Your task to perform on an android device: Open eBay Image 0: 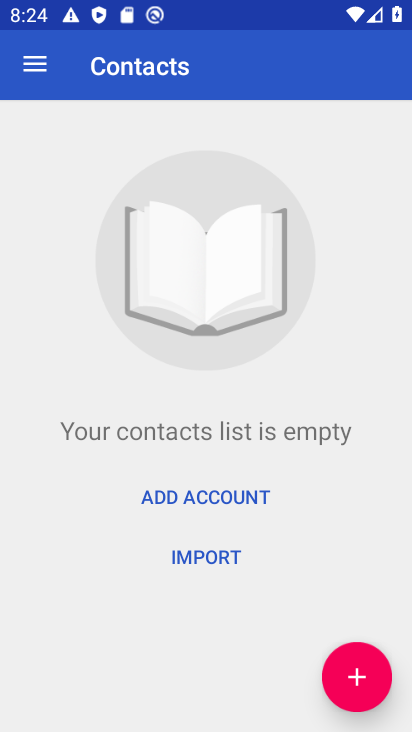
Step 0: press back button
Your task to perform on an android device: Open eBay Image 1: 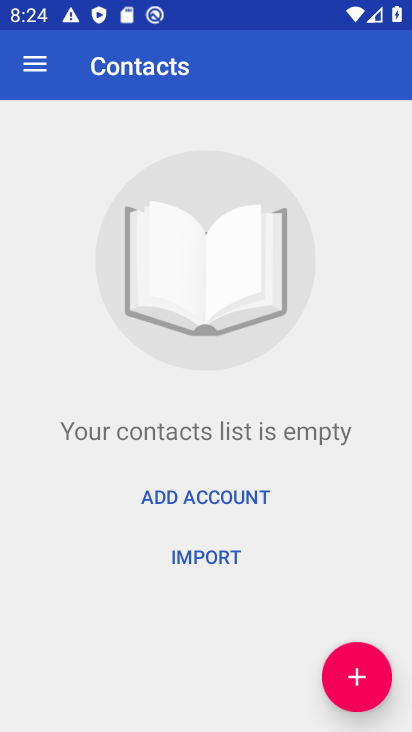
Step 1: press back button
Your task to perform on an android device: Open eBay Image 2: 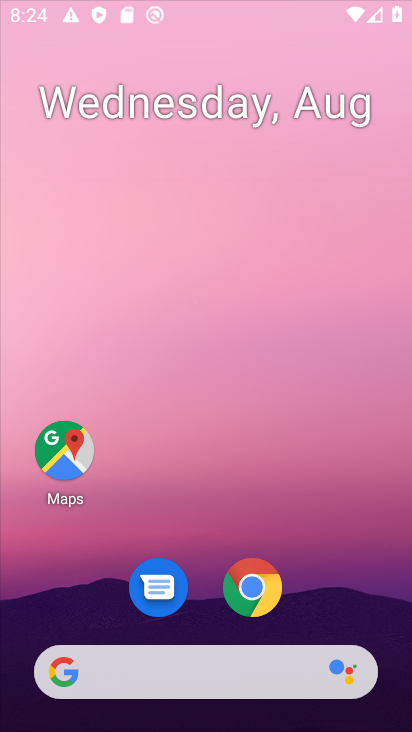
Step 2: press back button
Your task to perform on an android device: Open eBay Image 3: 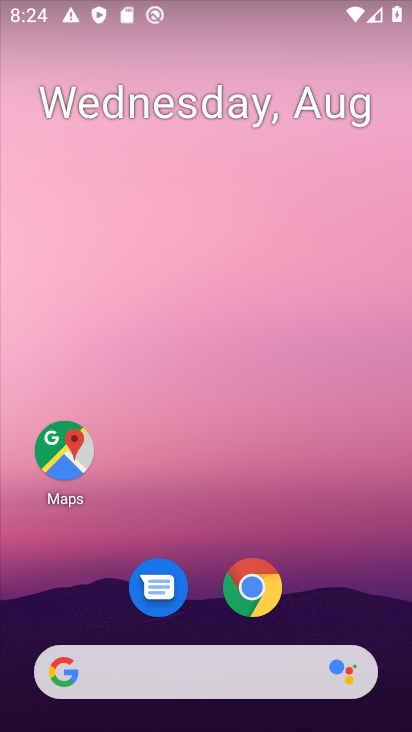
Step 3: press home button
Your task to perform on an android device: Open eBay Image 4: 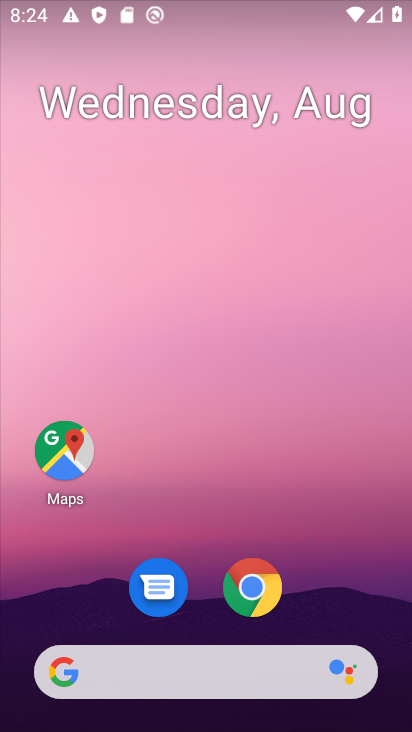
Step 4: drag from (217, 536) to (187, 297)
Your task to perform on an android device: Open eBay Image 5: 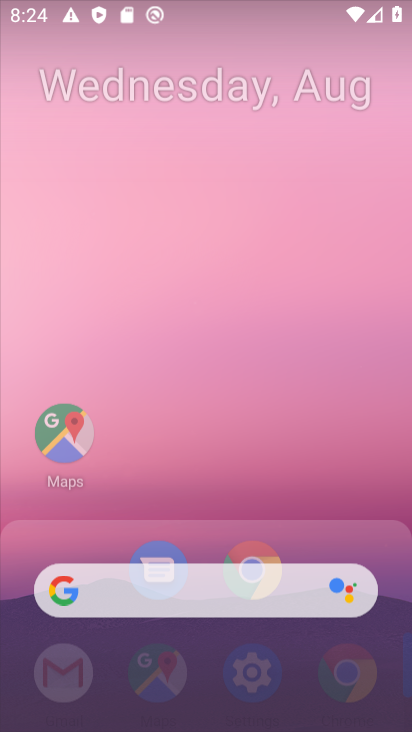
Step 5: drag from (205, 572) to (171, 357)
Your task to perform on an android device: Open eBay Image 6: 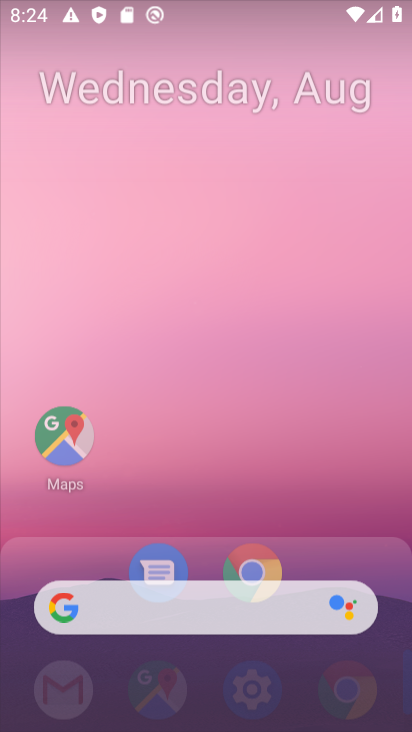
Step 6: drag from (218, 520) to (200, 63)
Your task to perform on an android device: Open eBay Image 7: 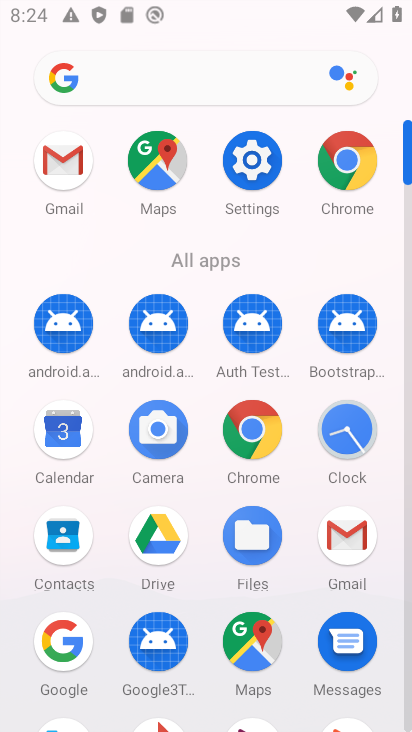
Step 7: drag from (224, 448) to (204, 68)
Your task to perform on an android device: Open eBay Image 8: 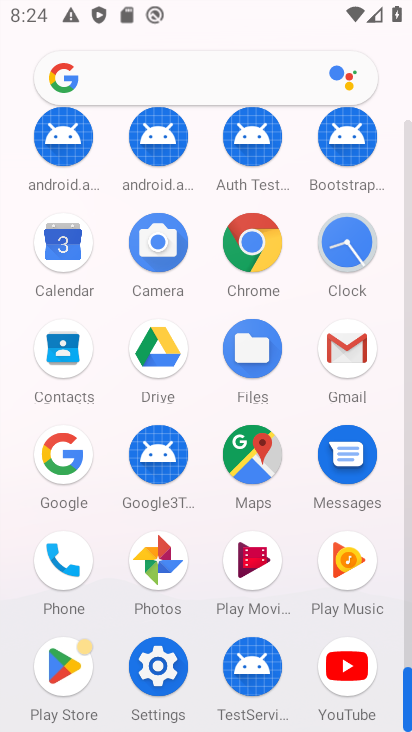
Step 8: click (249, 247)
Your task to perform on an android device: Open eBay Image 9: 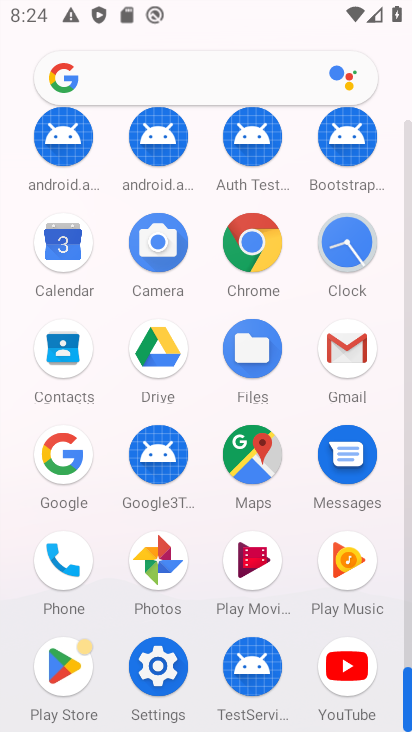
Step 9: click (249, 247)
Your task to perform on an android device: Open eBay Image 10: 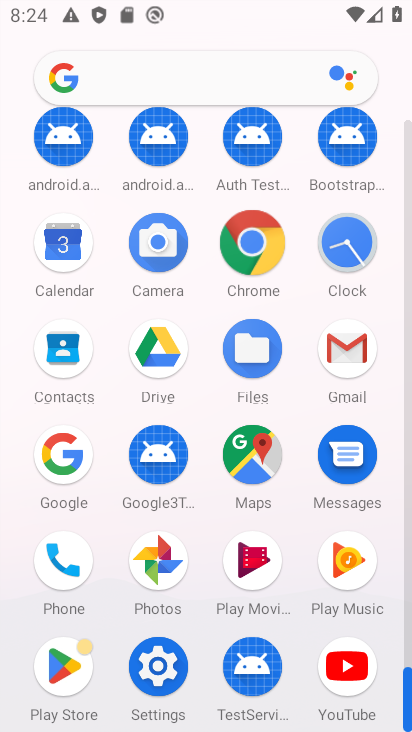
Step 10: click (249, 247)
Your task to perform on an android device: Open eBay Image 11: 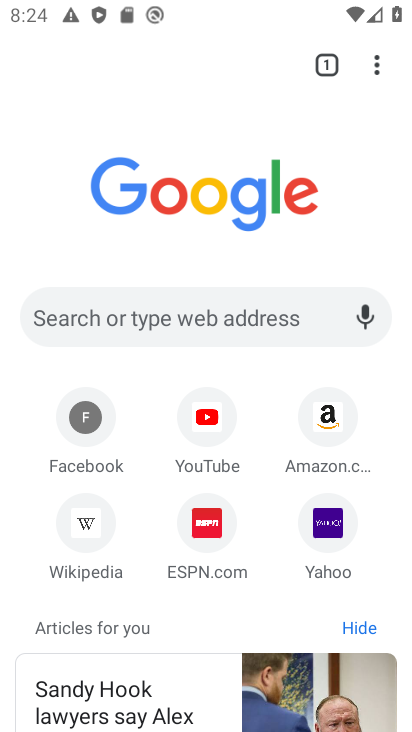
Step 11: click (90, 319)
Your task to perform on an android device: Open eBay Image 12: 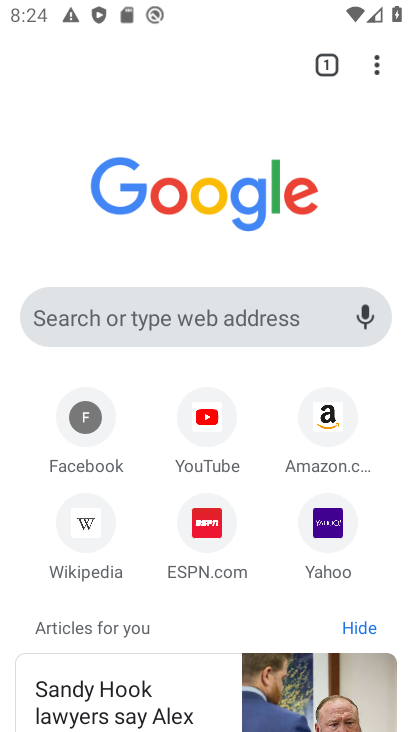
Step 12: click (92, 321)
Your task to perform on an android device: Open eBay Image 13: 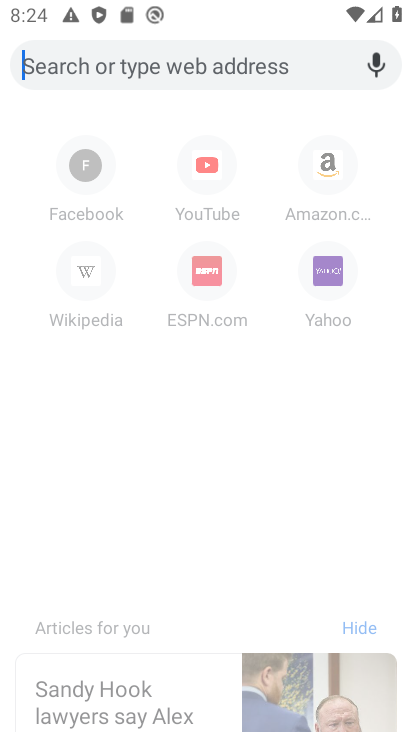
Step 13: click (93, 322)
Your task to perform on an android device: Open eBay Image 14: 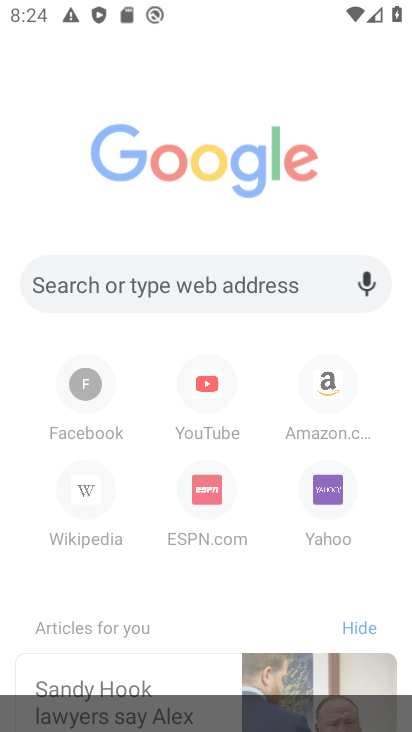
Step 14: click (93, 322)
Your task to perform on an android device: Open eBay Image 15: 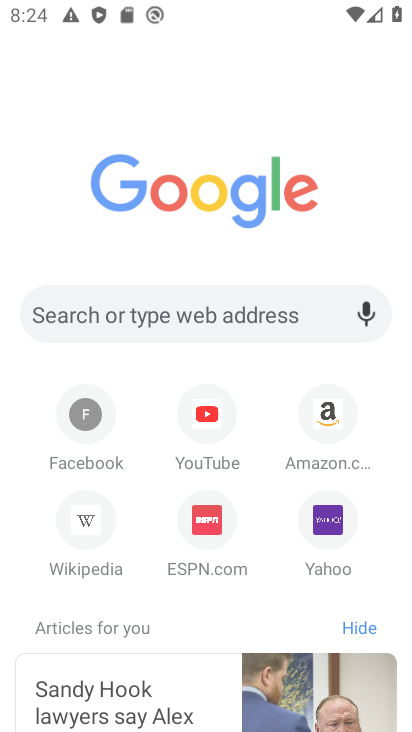
Step 15: click (94, 321)
Your task to perform on an android device: Open eBay Image 16: 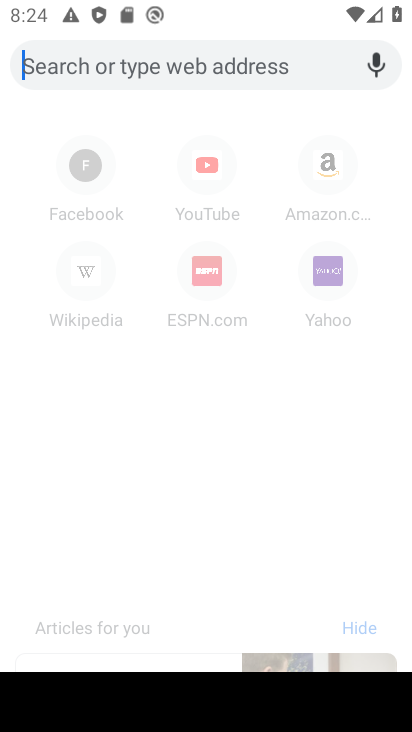
Step 16: type "ebay"
Your task to perform on an android device: Open eBay Image 17: 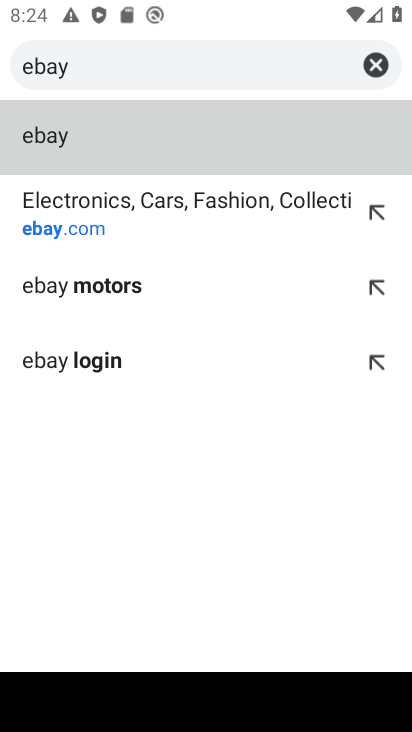
Step 17: click (75, 135)
Your task to perform on an android device: Open eBay Image 18: 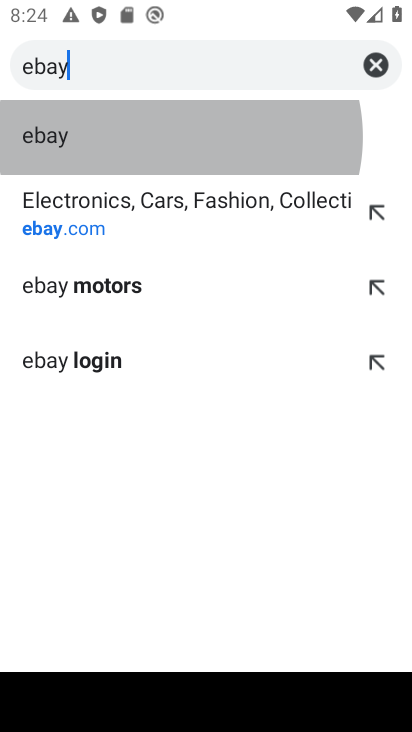
Step 18: click (75, 135)
Your task to perform on an android device: Open eBay Image 19: 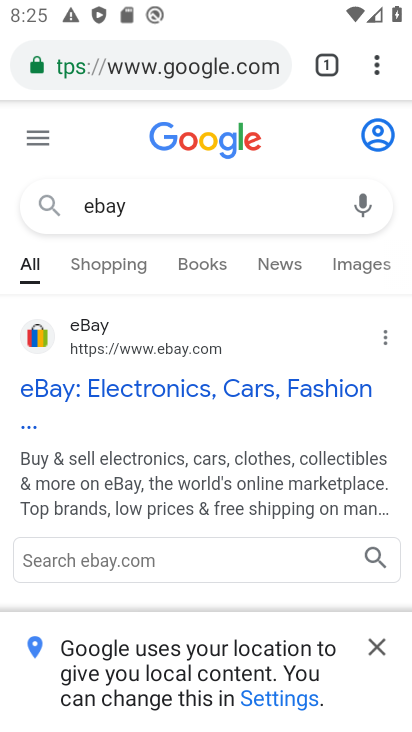
Step 19: task complete